Your task to perform on an android device: Open Chrome and go to the settings page Image 0: 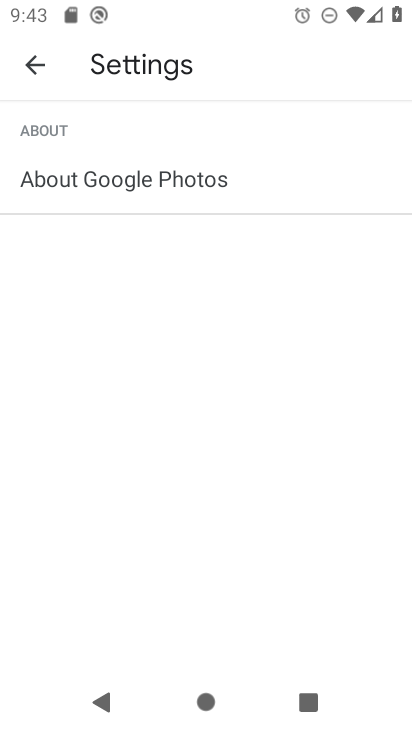
Step 0: press home button
Your task to perform on an android device: Open Chrome and go to the settings page Image 1: 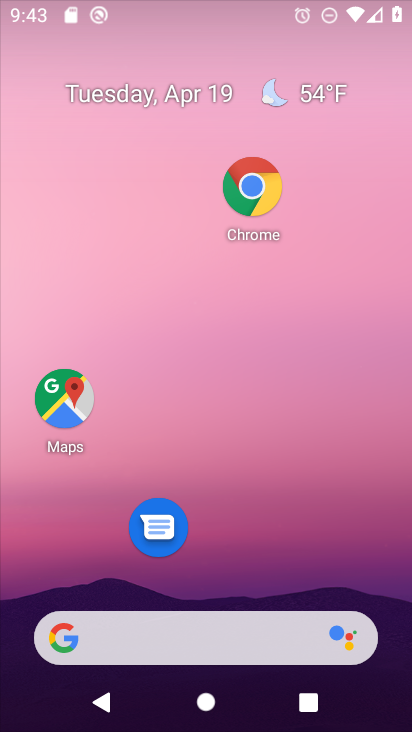
Step 1: drag from (277, 497) to (333, 207)
Your task to perform on an android device: Open Chrome and go to the settings page Image 2: 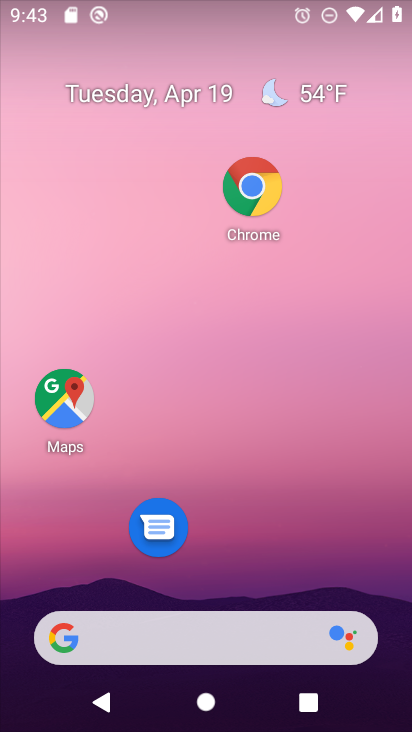
Step 2: drag from (260, 553) to (316, 199)
Your task to perform on an android device: Open Chrome and go to the settings page Image 3: 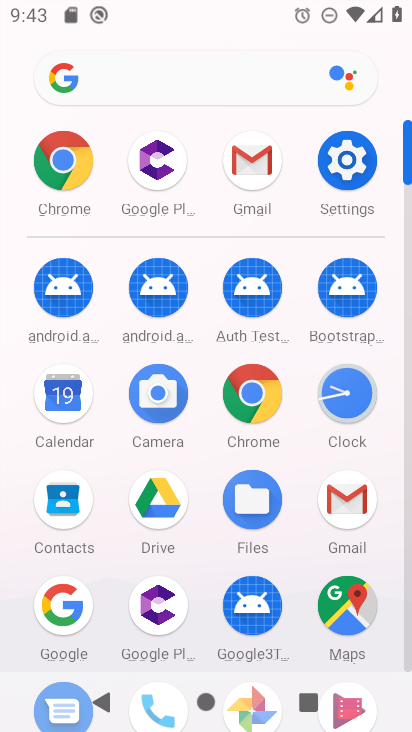
Step 3: click (245, 383)
Your task to perform on an android device: Open Chrome and go to the settings page Image 4: 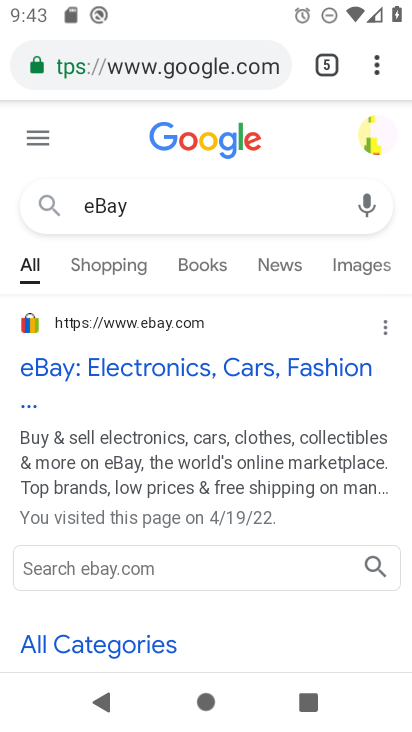
Step 4: click (383, 76)
Your task to perform on an android device: Open Chrome and go to the settings page Image 5: 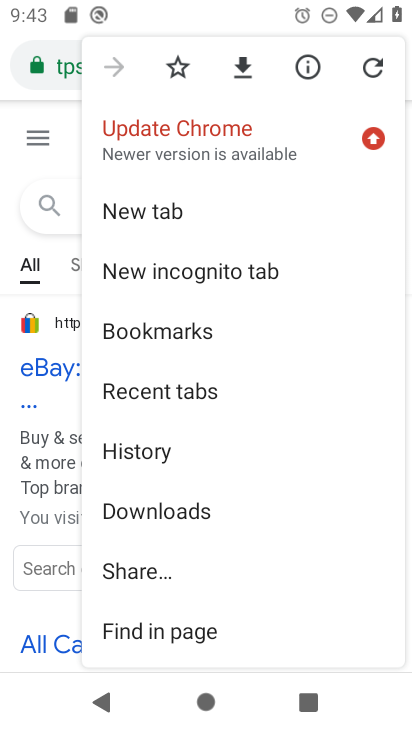
Step 5: drag from (208, 528) to (271, 215)
Your task to perform on an android device: Open Chrome and go to the settings page Image 6: 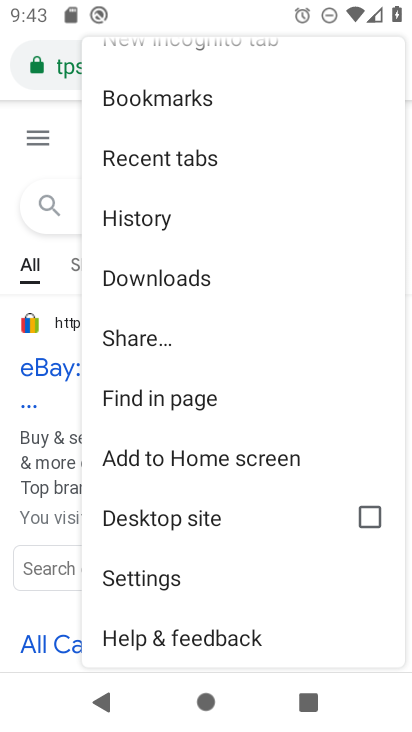
Step 6: click (228, 573)
Your task to perform on an android device: Open Chrome and go to the settings page Image 7: 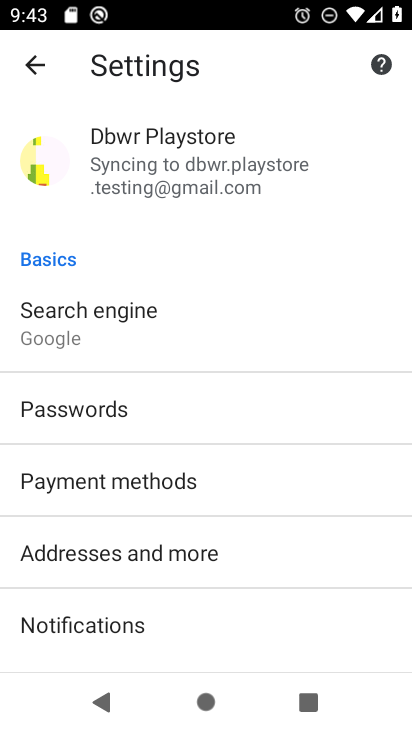
Step 7: task complete